Your task to perform on an android device: Open ESPN.com Image 0: 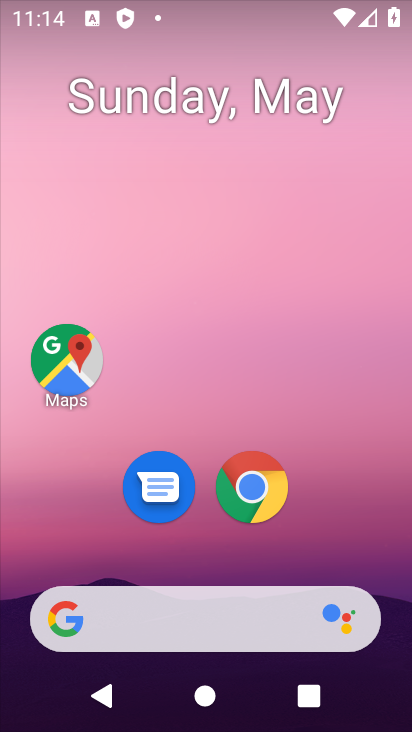
Step 0: drag from (171, 507) to (230, 115)
Your task to perform on an android device: Open ESPN.com Image 1: 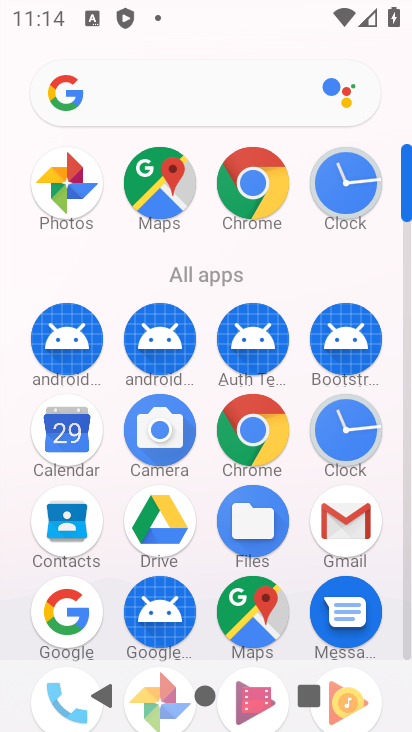
Step 1: click (224, 428)
Your task to perform on an android device: Open ESPN.com Image 2: 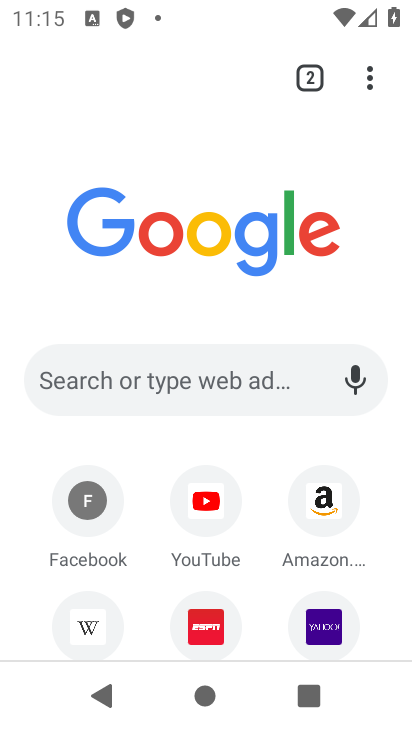
Step 2: drag from (171, 497) to (252, 247)
Your task to perform on an android device: Open ESPN.com Image 3: 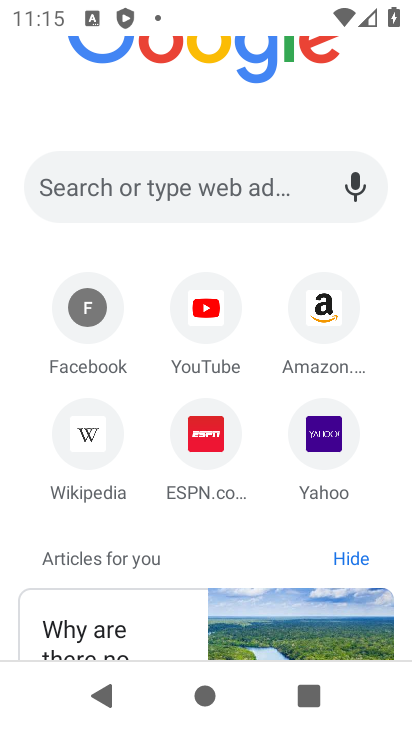
Step 3: click (180, 420)
Your task to perform on an android device: Open ESPN.com Image 4: 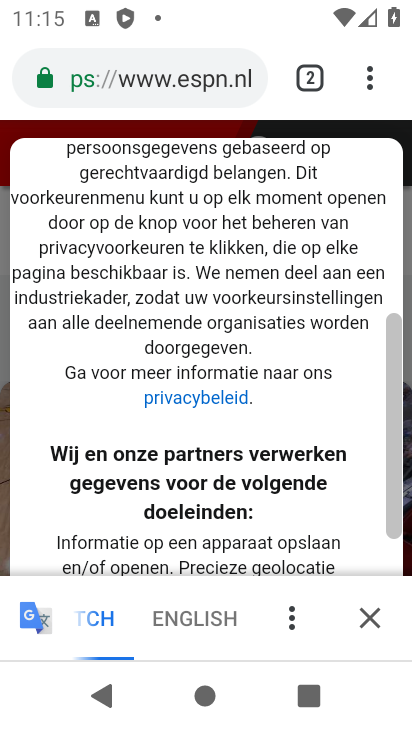
Step 4: task complete